Your task to perform on an android device: toggle wifi Image 0: 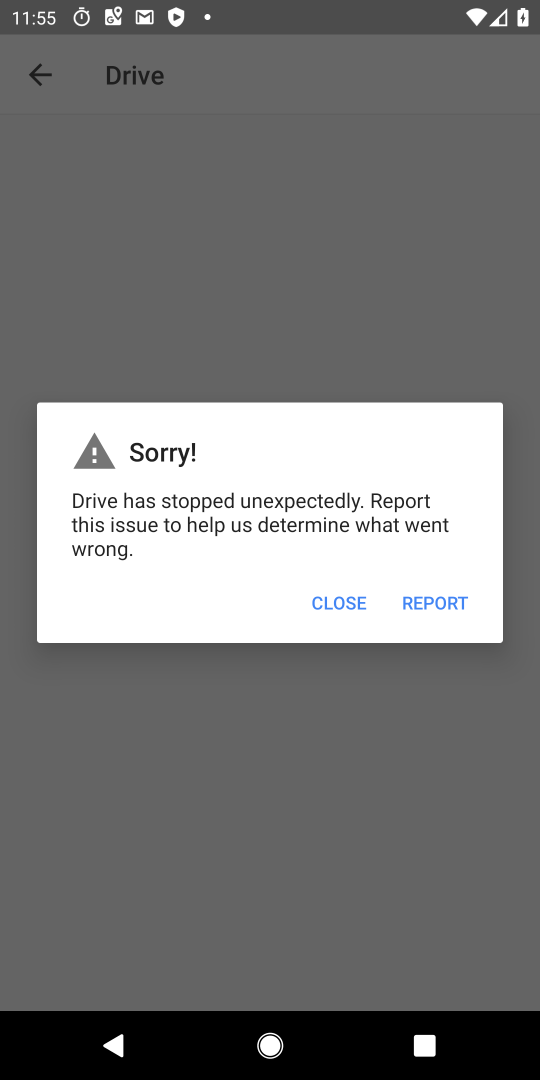
Step 0: press home button
Your task to perform on an android device: toggle wifi Image 1: 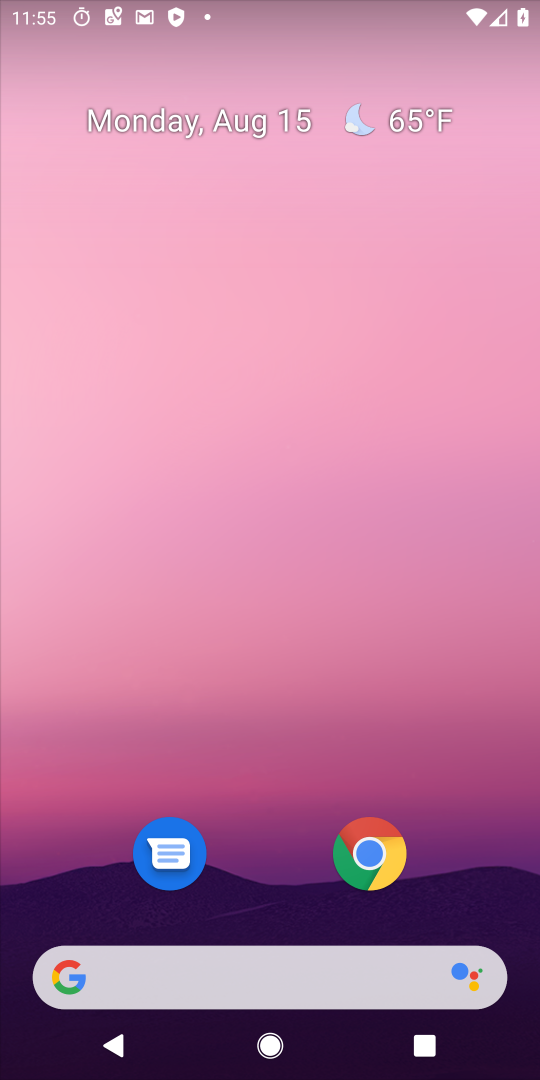
Step 1: drag from (210, 963) to (232, 343)
Your task to perform on an android device: toggle wifi Image 2: 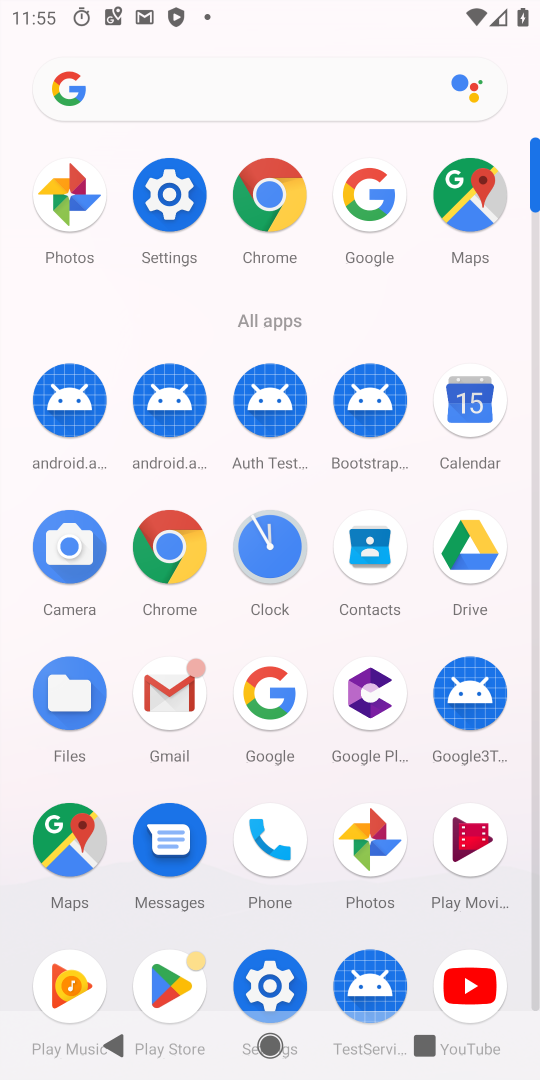
Step 2: click (152, 191)
Your task to perform on an android device: toggle wifi Image 3: 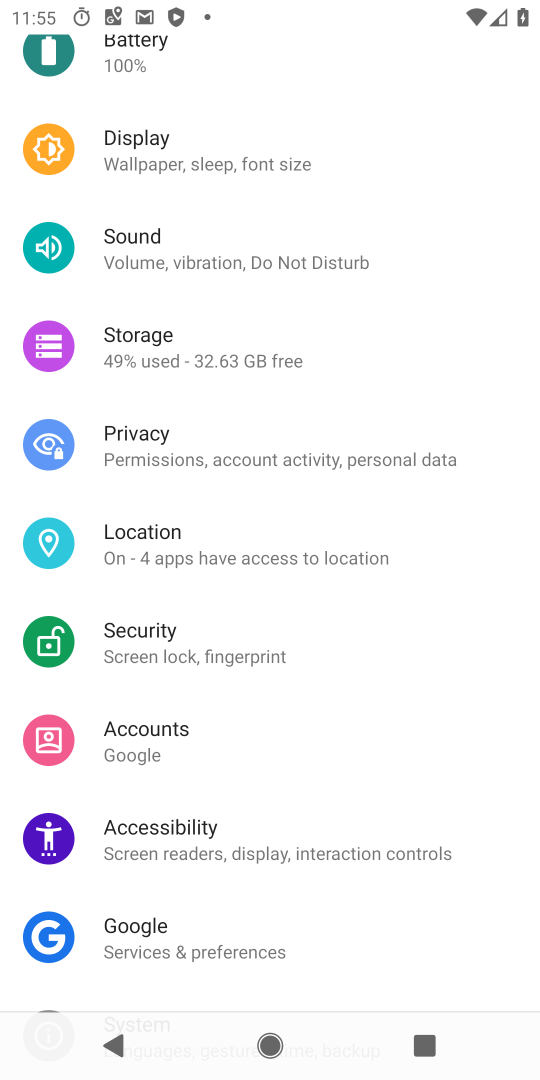
Step 3: drag from (196, 120) to (156, 876)
Your task to perform on an android device: toggle wifi Image 4: 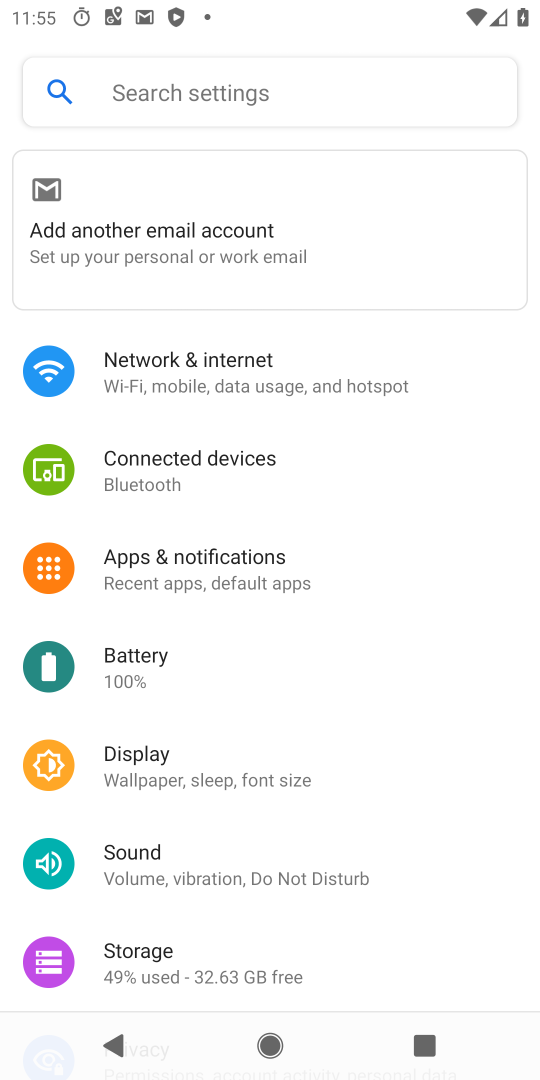
Step 4: click (136, 378)
Your task to perform on an android device: toggle wifi Image 5: 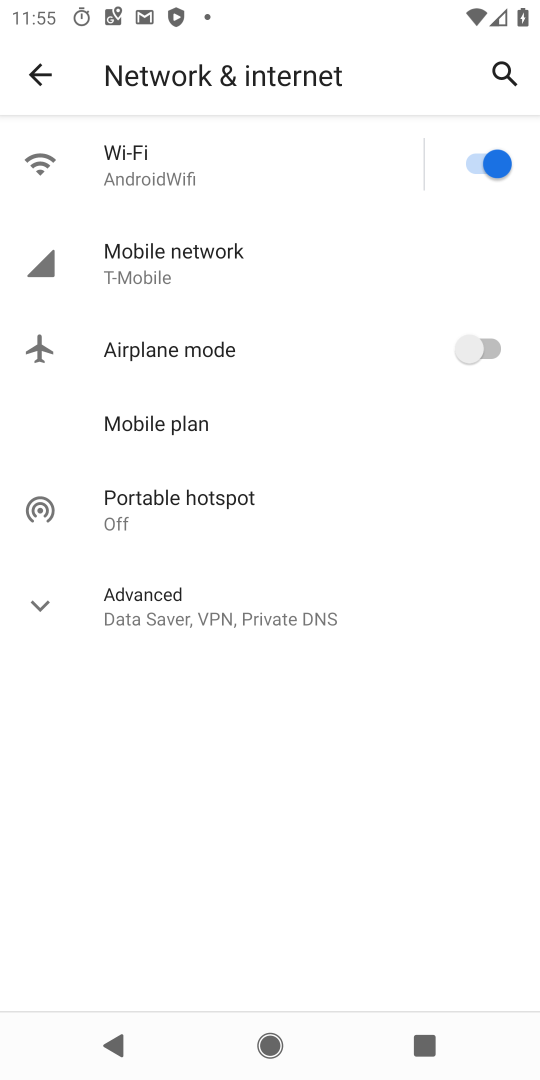
Step 5: click (480, 164)
Your task to perform on an android device: toggle wifi Image 6: 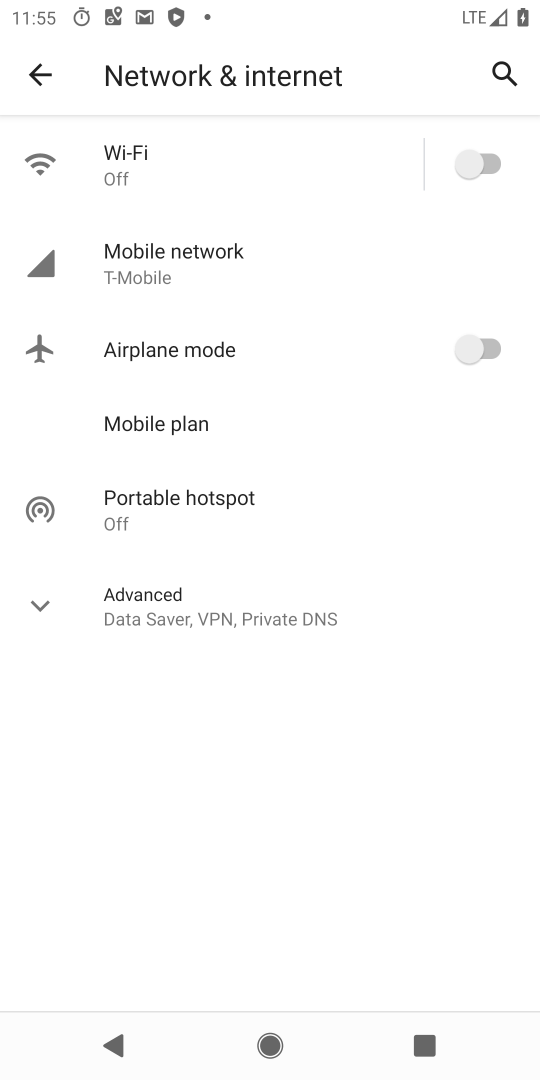
Step 6: task complete